Your task to perform on an android device: Go to settings Image 0: 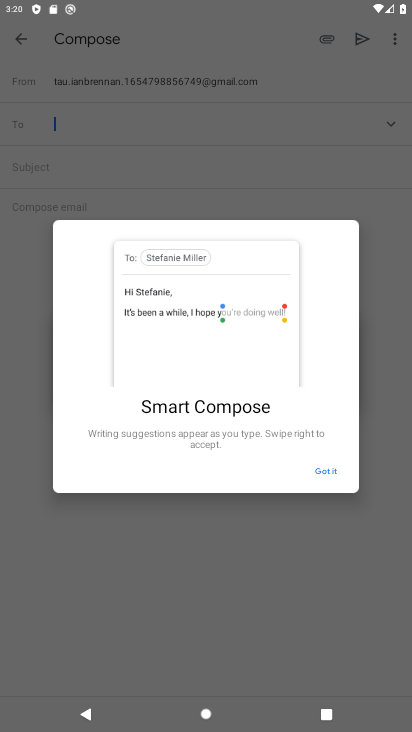
Step 0: press home button
Your task to perform on an android device: Go to settings Image 1: 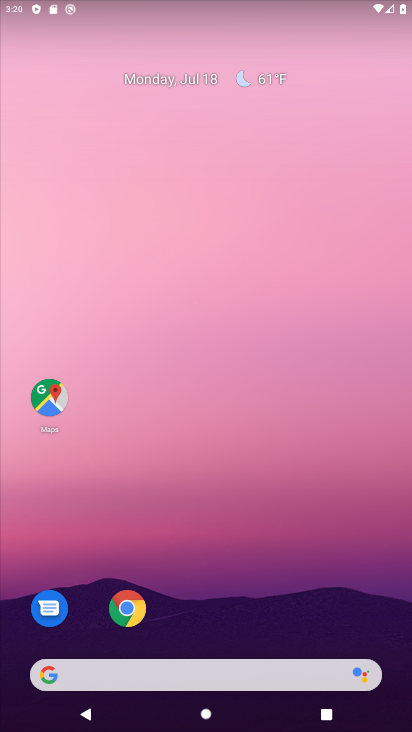
Step 1: drag from (253, 640) to (298, 49)
Your task to perform on an android device: Go to settings Image 2: 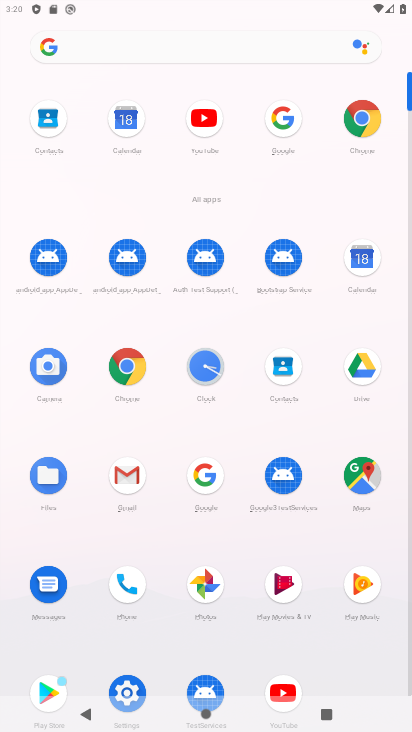
Step 2: click (130, 681)
Your task to perform on an android device: Go to settings Image 3: 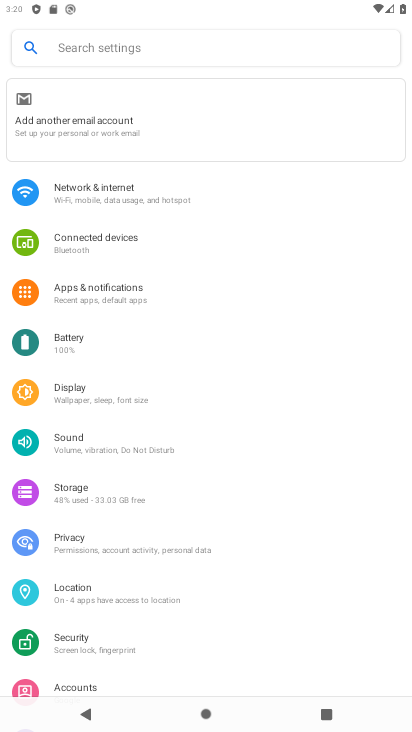
Step 3: task complete